Your task to perform on an android device: add a contact in the contacts app Image 0: 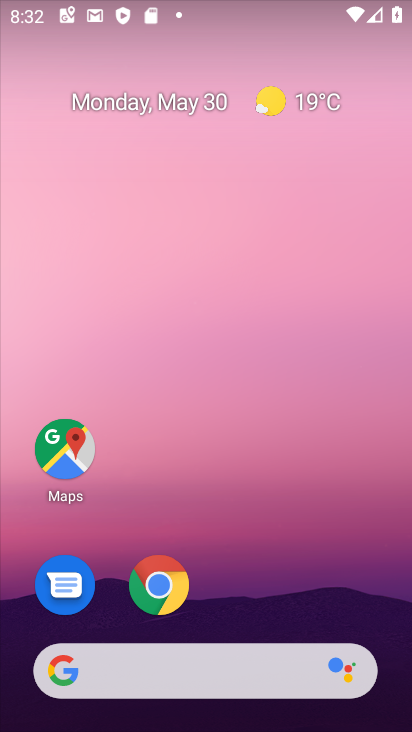
Step 0: drag from (217, 502) to (272, 125)
Your task to perform on an android device: add a contact in the contacts app Image 1: 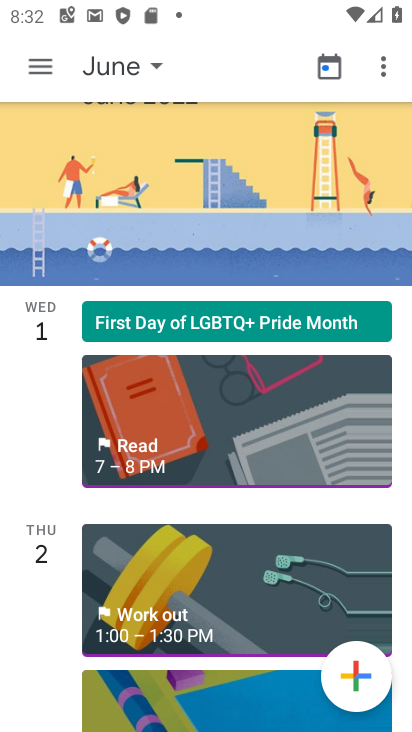
Step 1: press home button
Your task to perform on an android device: add a contact in the contacts app Image 2: 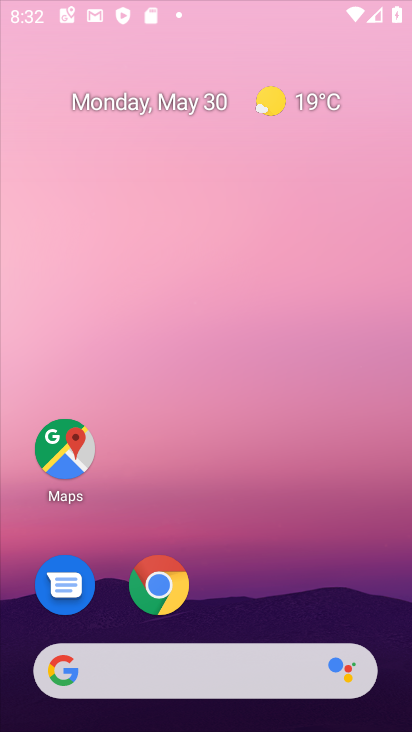
Step 2: drag from (222, 626) to (295, 69)
Your task to perform on an android device: add a contact in the contacts app Image 3: 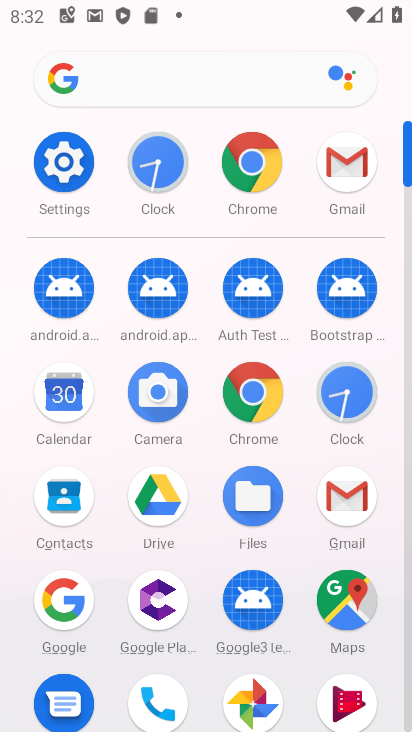
Step 3: drag from (201, 643) to (220, 237)
Your task to perform on an android device: add a contact in the contacts app Image 4: 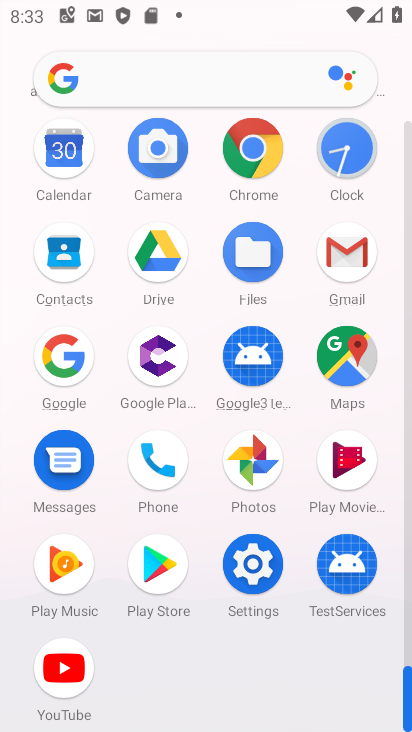
Step 4: drag from (205, 196) to (185, 672)
Your task to perform on an android device: add a contact in the contacts app Image 5: 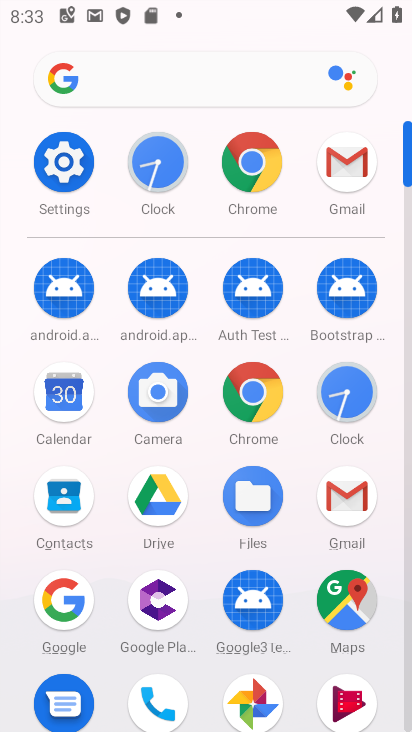
Step 5: click (62, 491)
Your task to perform on an android device: add a contact in the contacts app Image 6: 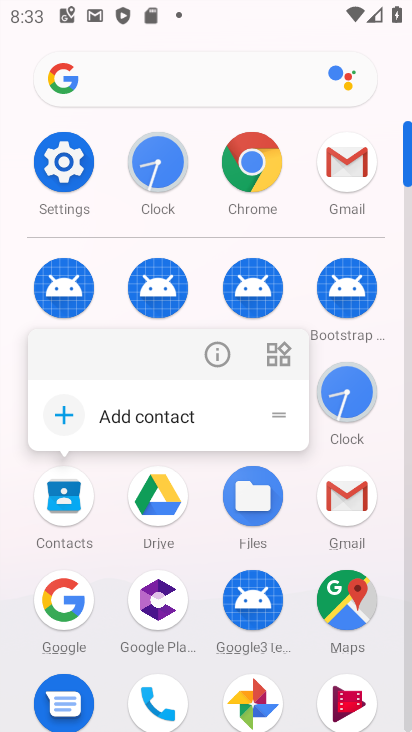
Step 6: click (213, 353)
Your task to perform on an android device: add a contact in the contacts app Image 7: 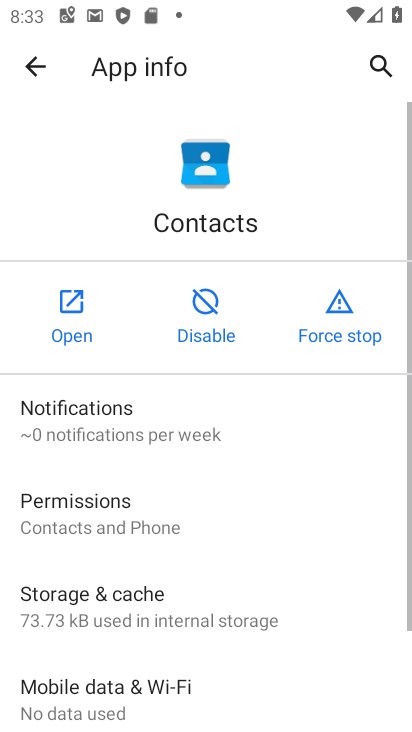
Step 7: click (87, 323)
Your task to perform on an android device: add a contact in the contacts app Image 8: 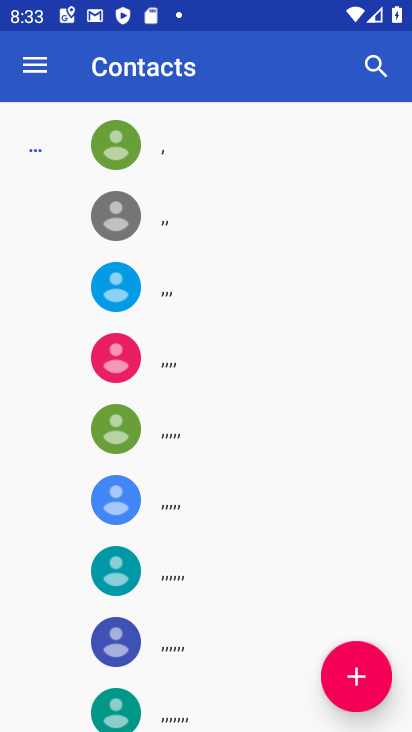
Step 8: drag from (197, 593) to (266, 619)
Your task to perform on an android device: add a contact in the contacts app Image 9: 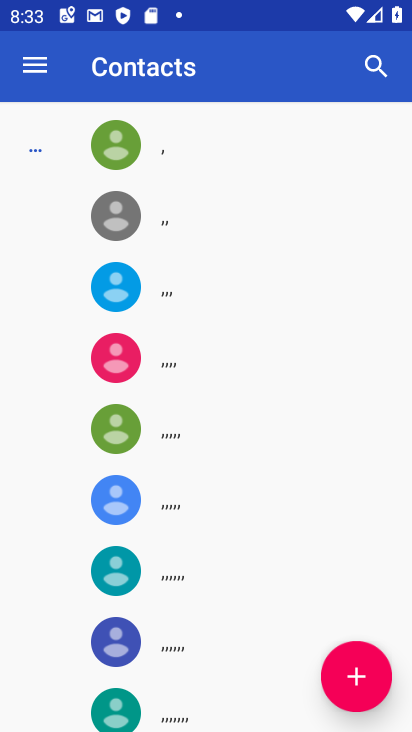
Step 9: drag from (203, 588) to (277, 239)
Your task to perform on an android device: add a contact in the contacts app Image 10: 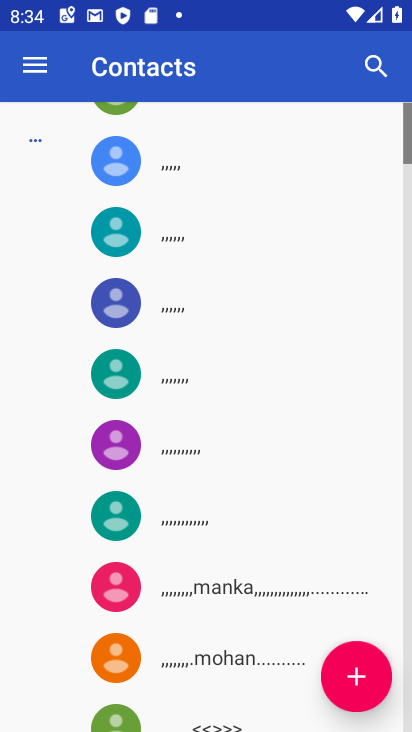
Step 10: click (365, 669)
Your task to perform on an android device: add a contact in the contacts app Image 11: 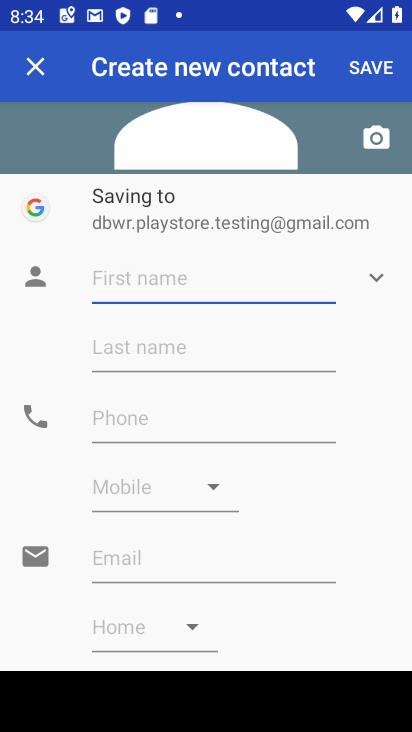
Step 11: type "p"
Your task to perform on an android device: add a contact in the contacts app Image 12: 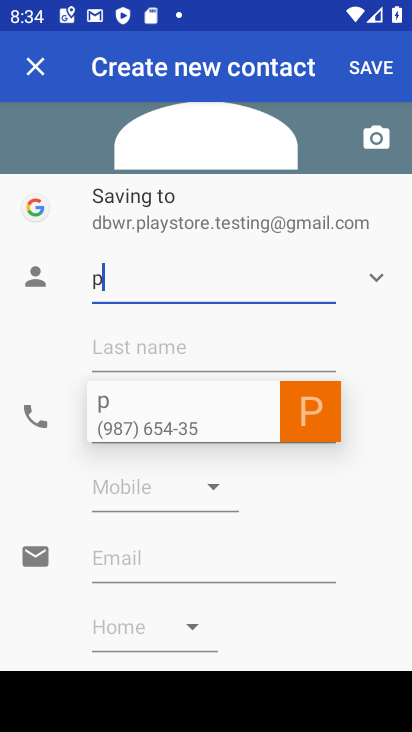
Step 12: click (353, 62)
Your task to perform on an android device: add a contact in the contacts app Image 13: 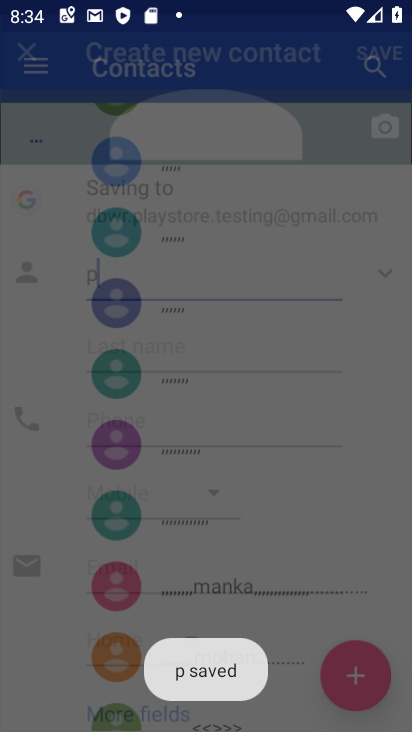
Step 13: task complete